Your task to perform on an android device: Set the phone to "Do not disturb". Image 0: 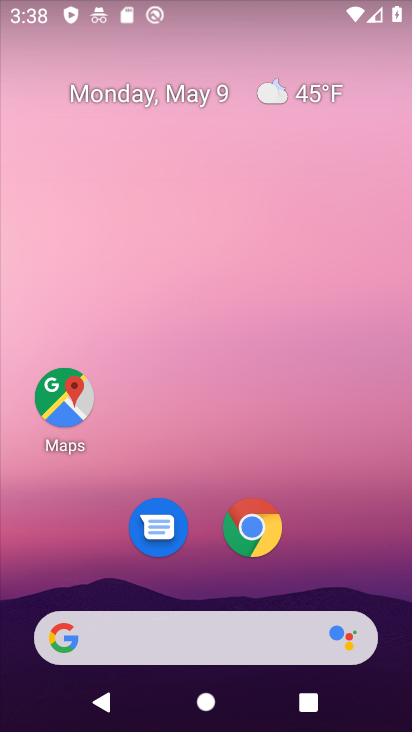
Step 0: drag from (348, 537) to (192, 51)
Your task to perform on an android device: Set the phone to "Do not disturb". Image 1: 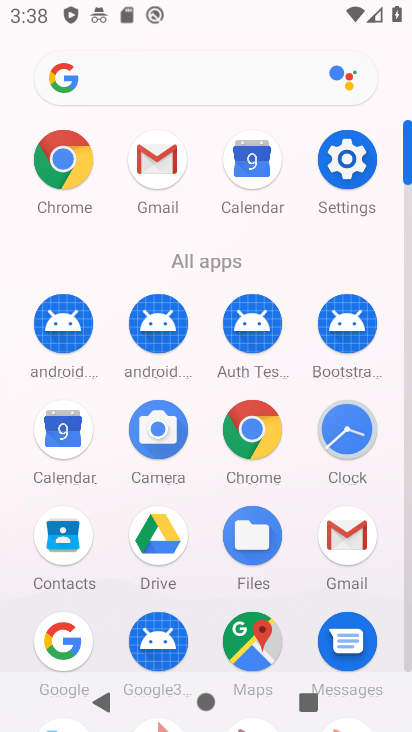
Step 1: click (334, 155)
Your task to perform on an android device: Set the phone to "Do not disturb". Image 2: 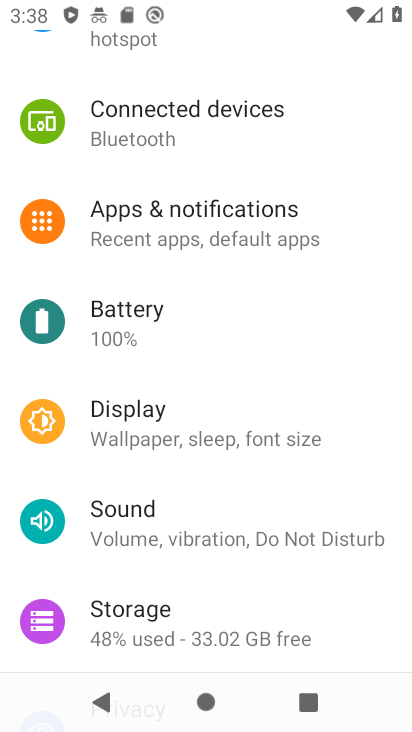
Step 2: click (209, 529)
Your task to perform on an android device: Set the phone to "Do not disturb". Image 3: 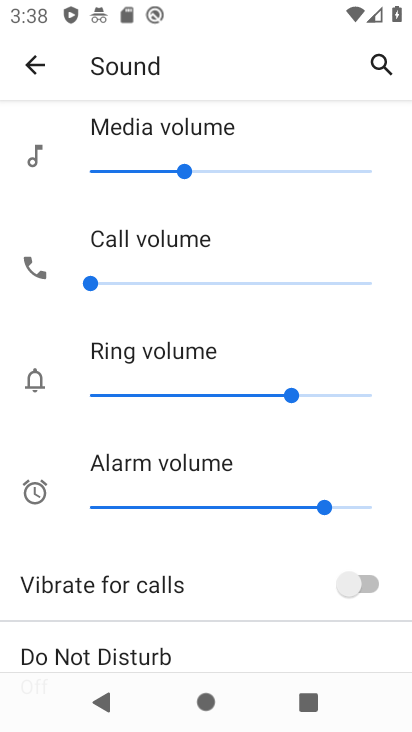
Step 3: drag from (234, 624) to (244, 304)
Your task to perform on an android device: Set the phone to "Do not disturb". Image 4: 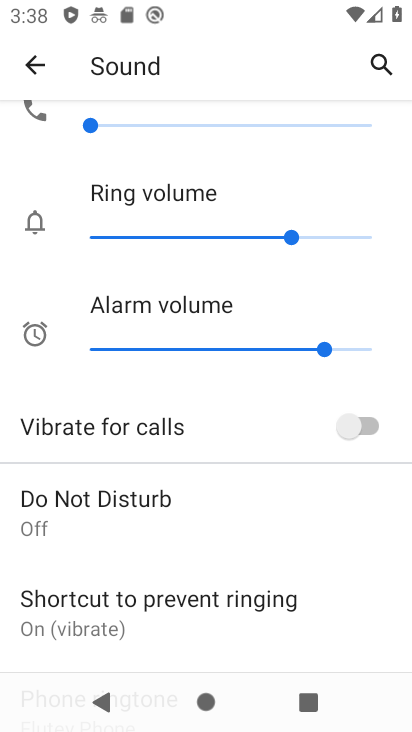
Step 4: click (277, 504)
Your task to perform on an android device: Set the phone to "Do not disturb". Image 5: 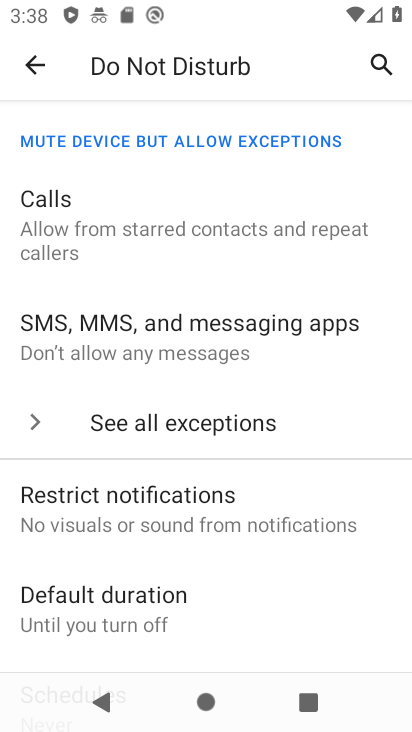
Step 5: drag from (318, 571) to (312, 267)
Your task to perform on an android device: Set the phone to "Do not disturb". Image 6: 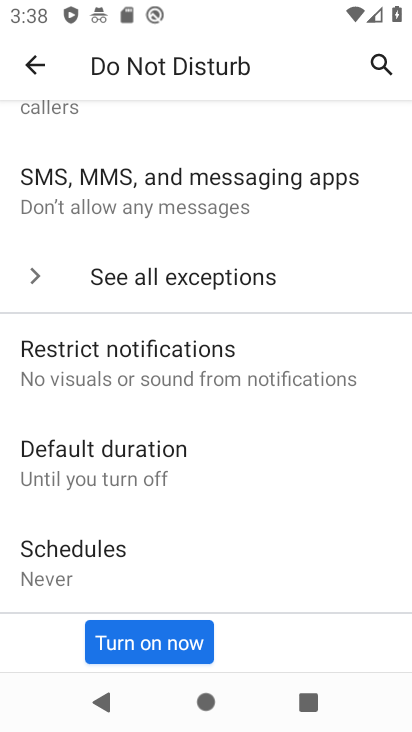
Step 6: click (178, 640)
Your task to perform on an android device: Set the phone to "Do not disturb". Image 7: 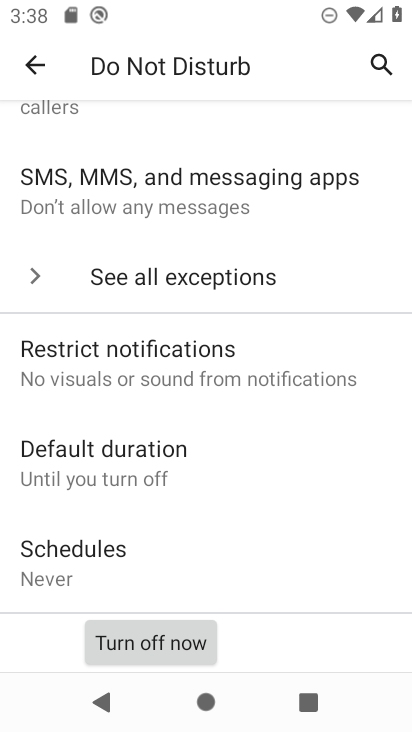
Step 7: task complete